Your task to perform on an android device: Open location settings Image 0: 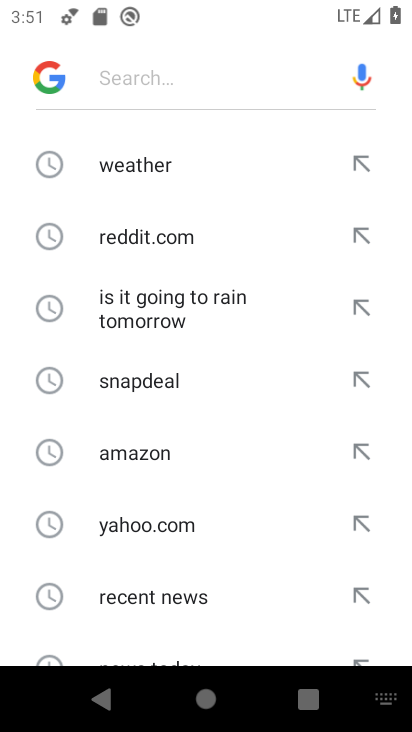
Step 0: press home button
Your task to perform on an android device: Open location settings Image 1: 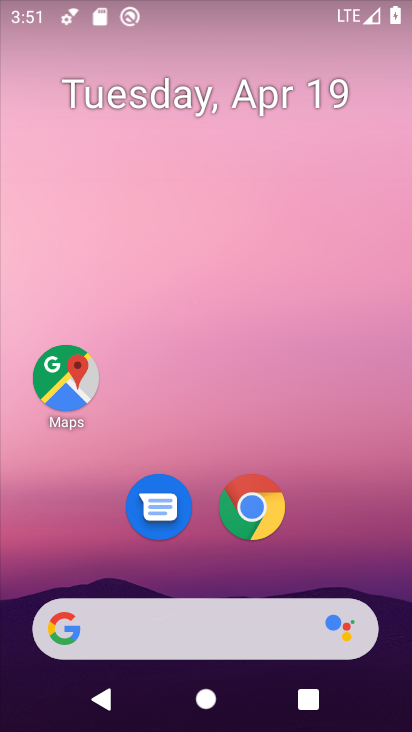
Step 1: drag from (333, 551) to (404, 74)
Your task to perform on an android device: Open location settings Image 2: 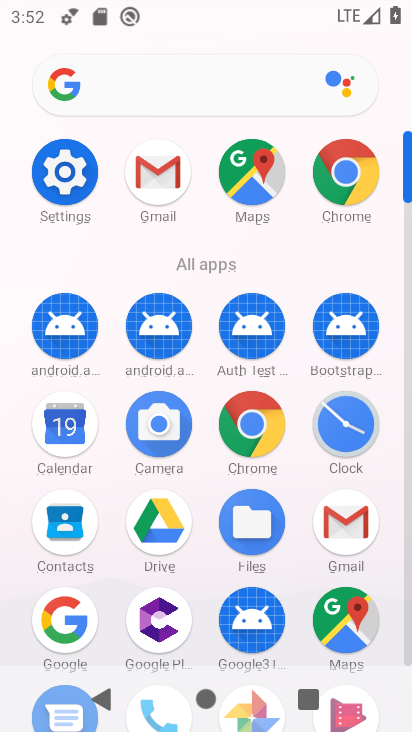
Step 2: click (63, 231)
Your task to perform on an android device: Open location settings Image 3: 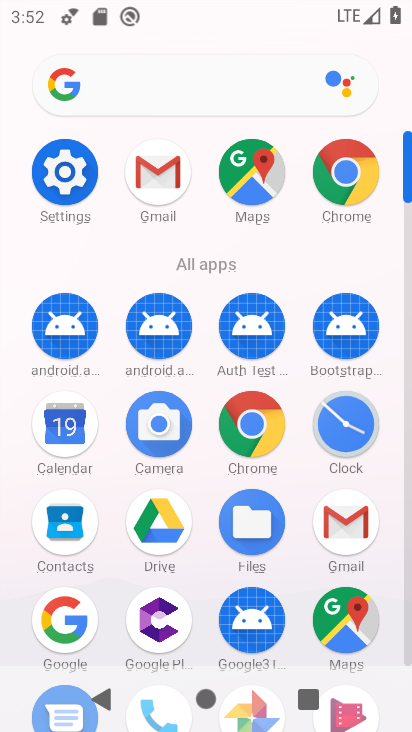
Step 3: click (60, 177)
Your task to perform on an android device: Open location settings Image 4: 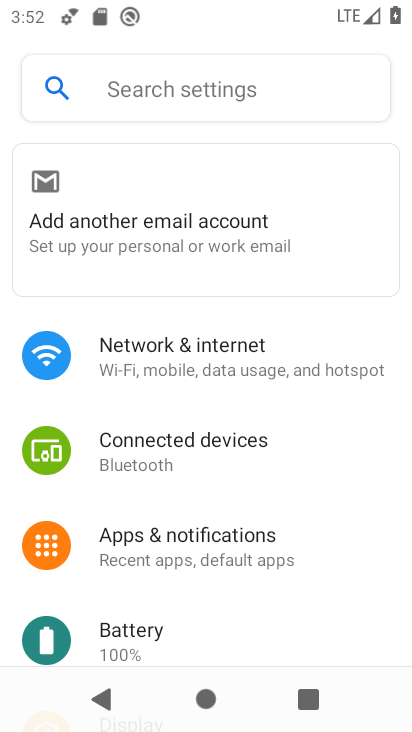
Step 4: drag from (188, 576) to (207, 369)
Your task to perform on an android device: Open location settings Image 5: 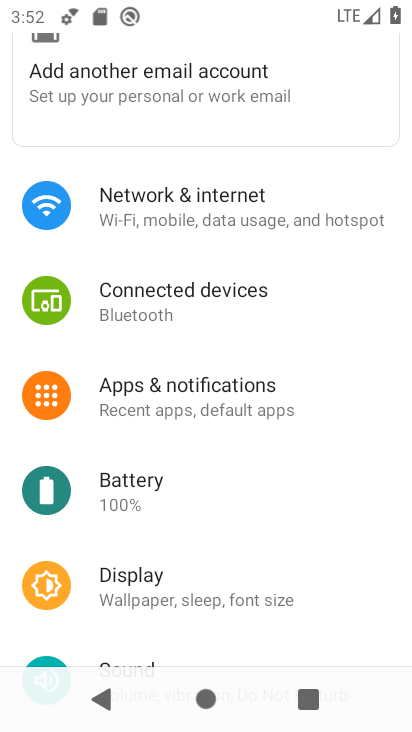
Step 5: drag from (212, 581) to (219, 406)
Your task to perform on an android device: Open location settings Image 6: 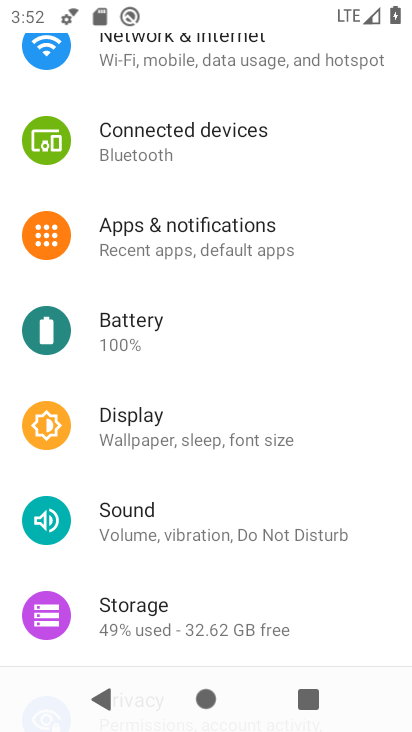
Step 6: drag from (228, 553) to (246, 428)
Your task to perform on an android device: Open location settings Image 7: 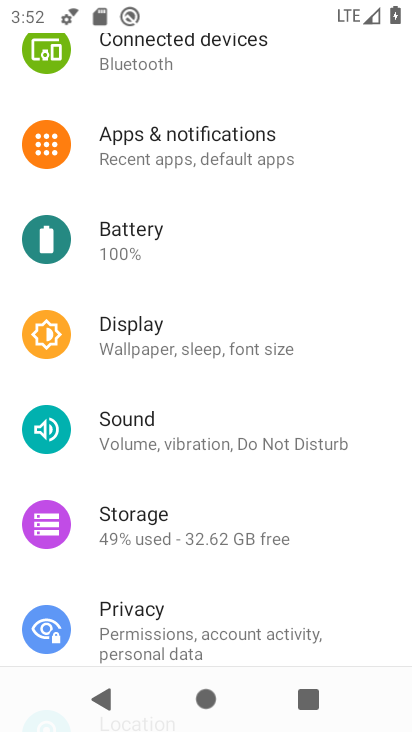
Step 7: drag from (236, 554) to (254, 365)
Your task to perform on an android device: Open location settings Image 8: 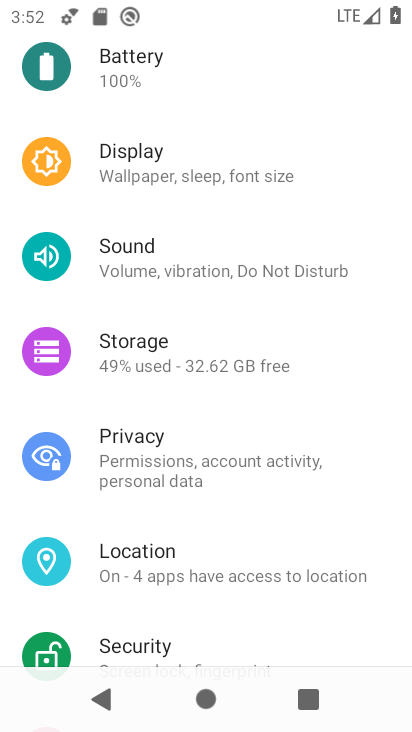
Step 8: click (206, 542)
Your task to perform on an android device: Open location settings Image 9: 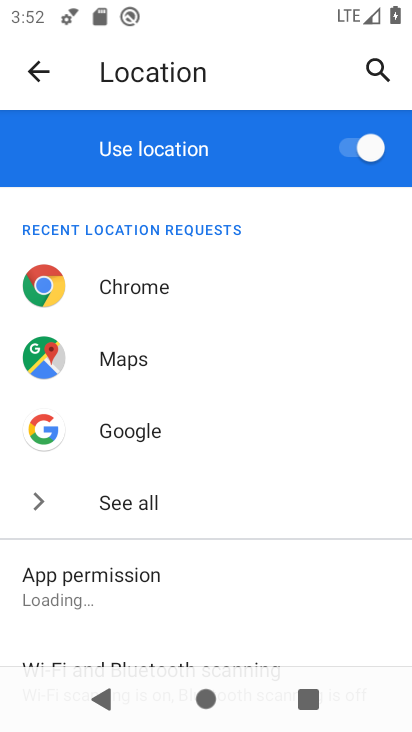
Step 9: task complete